Your task to perform on an android device: Open wifi settings Image 0: 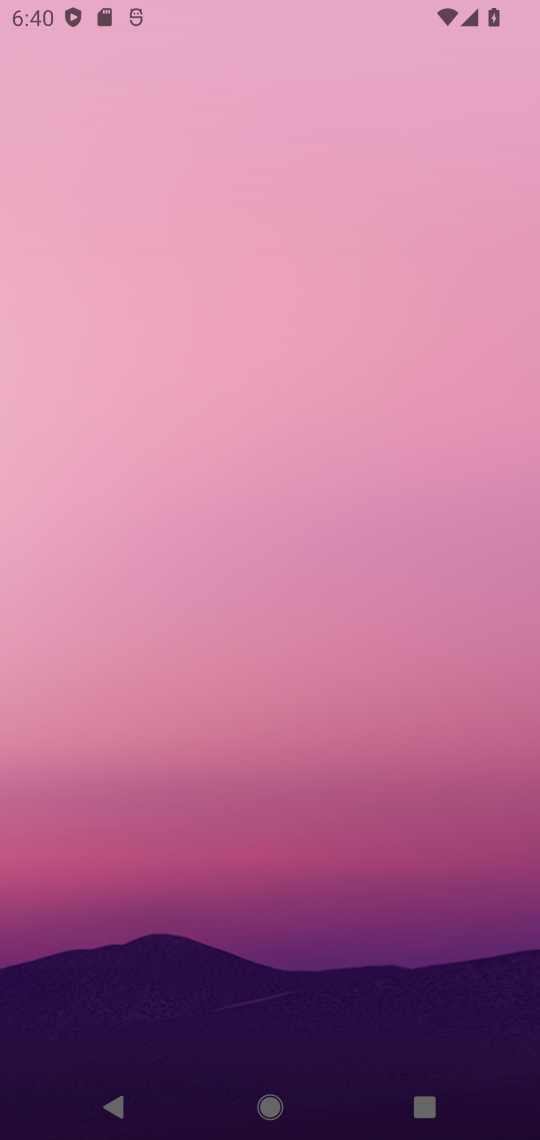
Step 0: click (382, 883)
Your task to perform on an android device: Open wifi settings Image 1: 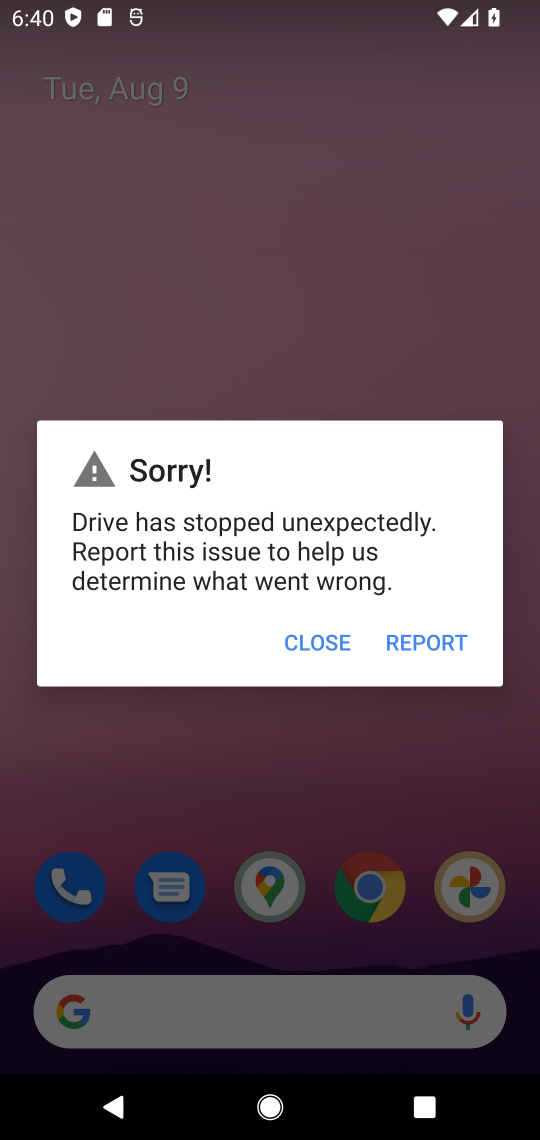
Step 1: press home button
Your task to perform on an android device: Open wifi settings Image 2: 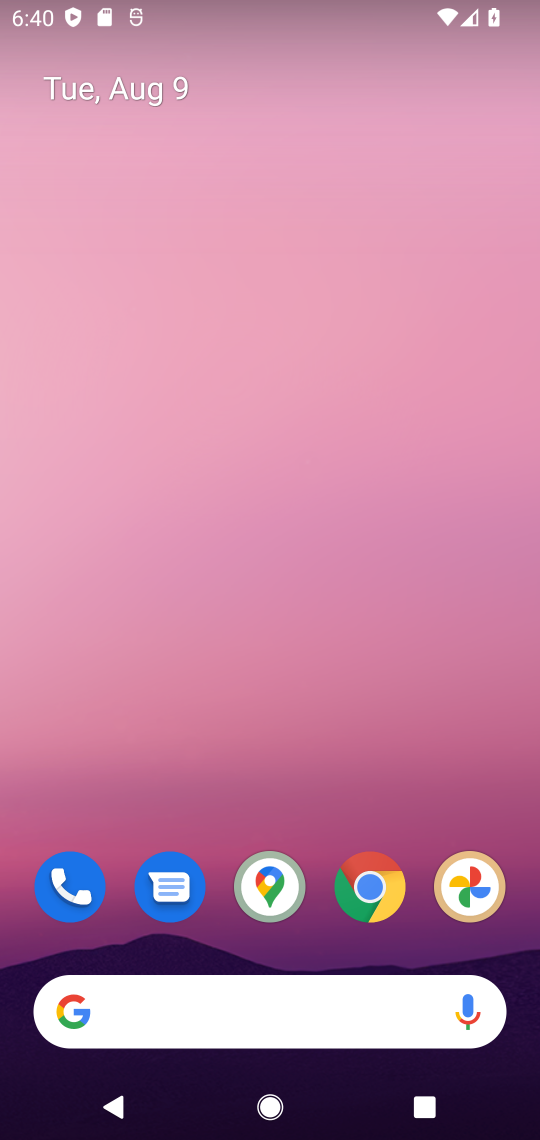
Step 2: drag from (270, 756) to (311, 0)
Your task to perform on an android device: Open wifi settings Image 3: 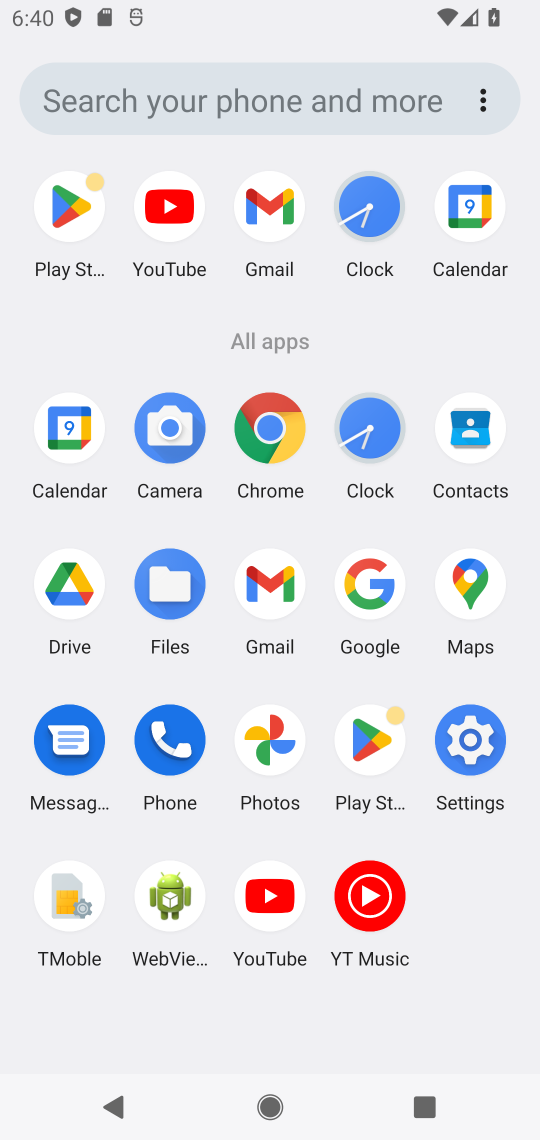
Step 3: click (465, 743)
Your task to perform on an android device: Open wifi settings Image 4: 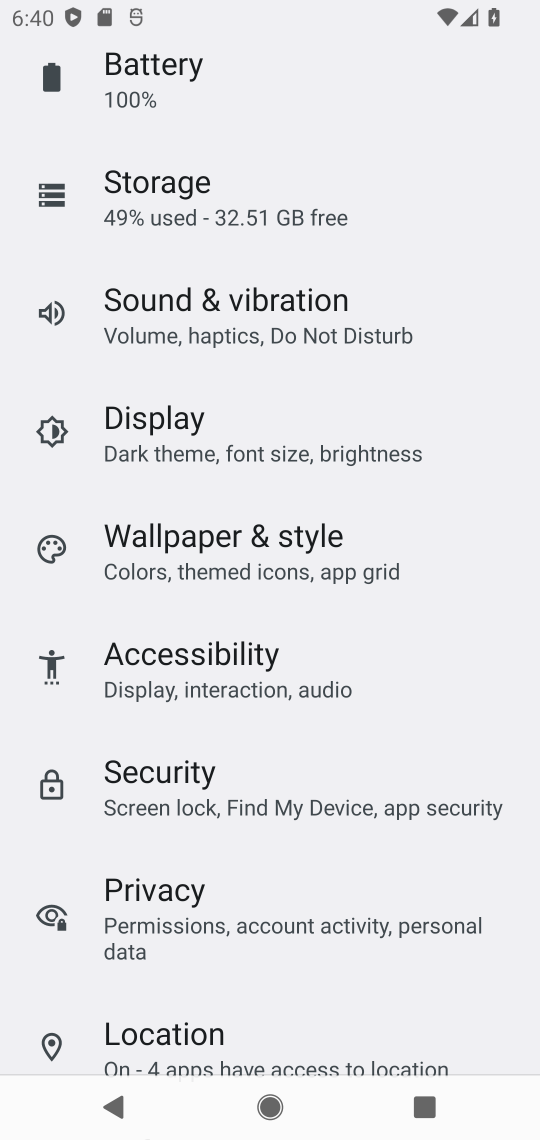
Step 4: drag from (266, 511) to (229, 837)
Your task to perform on an android device: Open wifi settings Image 5: 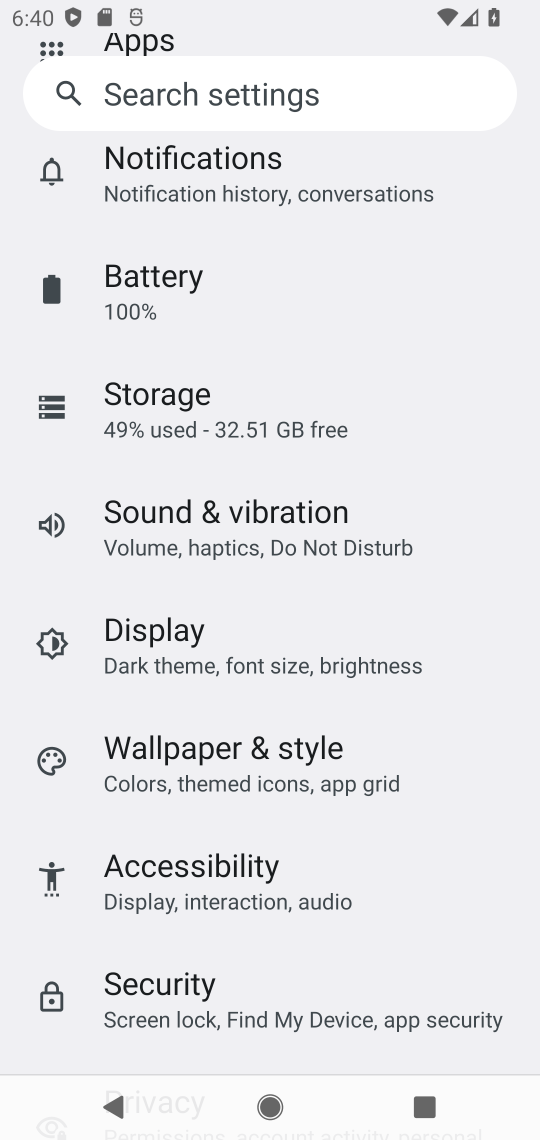
Step 5: drag from (306, 305) to (297, 927)
Your task to perform on an android device: Open wifi settings Image 6: 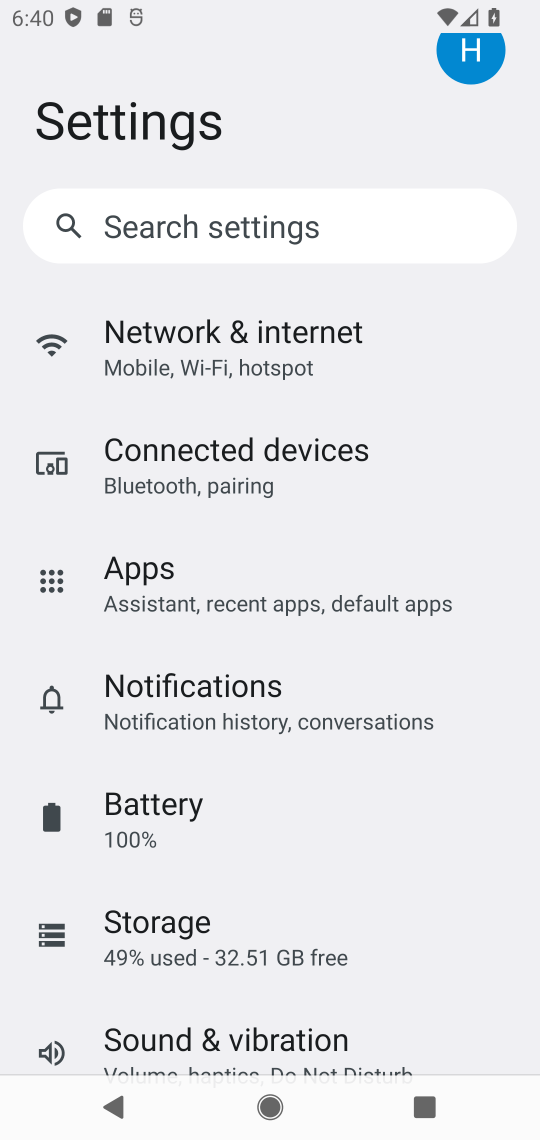
Step 6: click (299, 335)
Your task to perform on an android device: Open wifi settings Image 7: 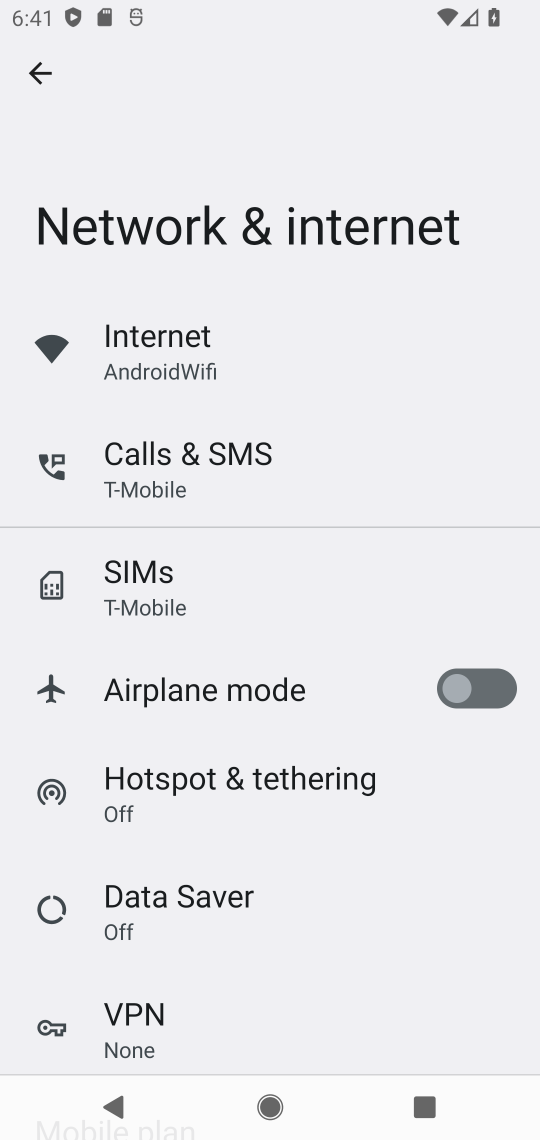
Step 7: click (193, 341)
Your task to perform on an android device: Open wifi settings Image 8: 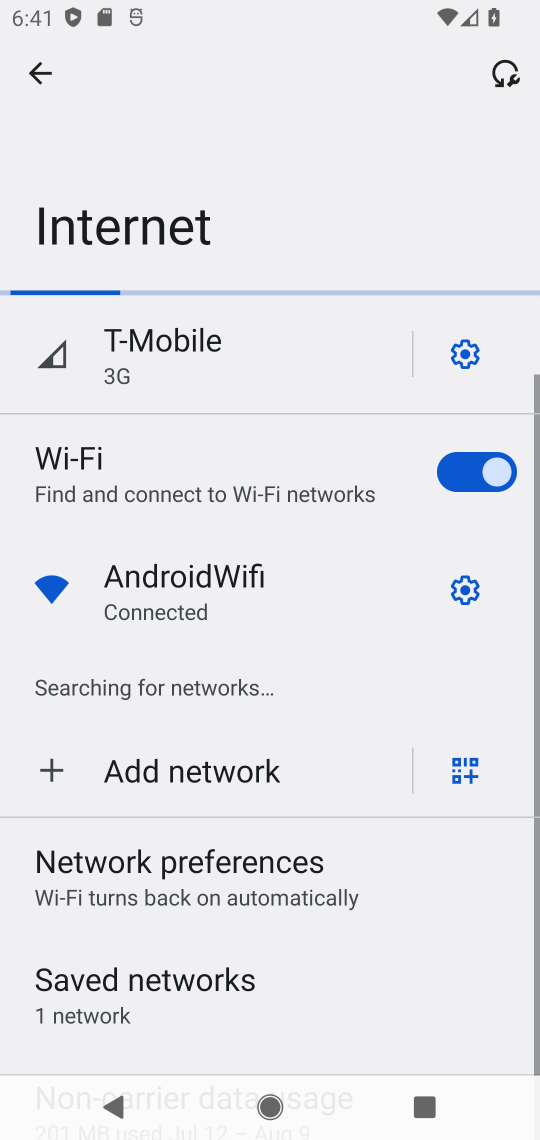
Step 8: task complete